Your task to perform on an android device: Go to CNN.com Image 0: 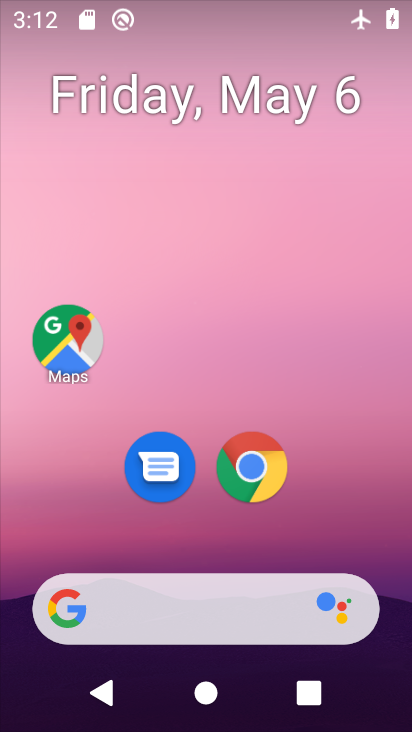
Step 0: drag from (399, 619) to (404, 227)
Your task to perform on an android device: Go to CNN.com Image 1: 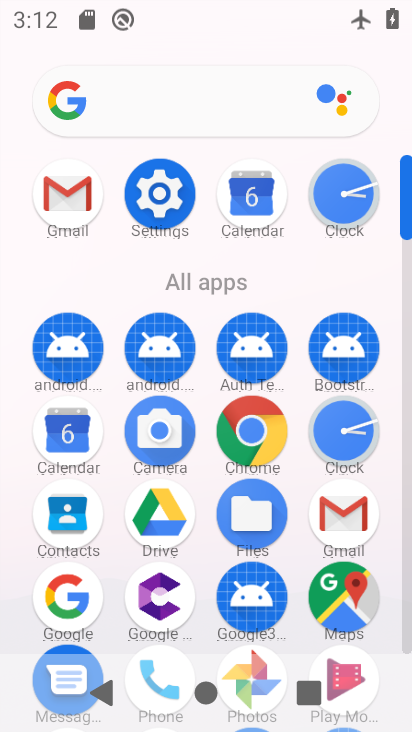
Step 1: click (245, 433)
Your task to perform on an android device: Go to CNN.com Image 2: 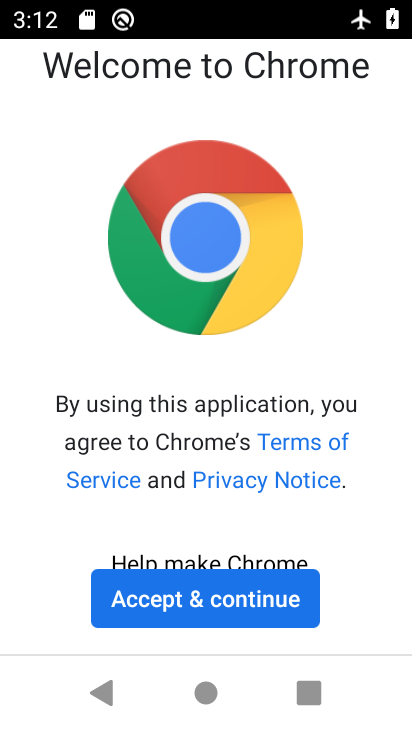
Step 2: click (194, 601)
Your task to perform on an android device: Go to CNN.com Image 3: 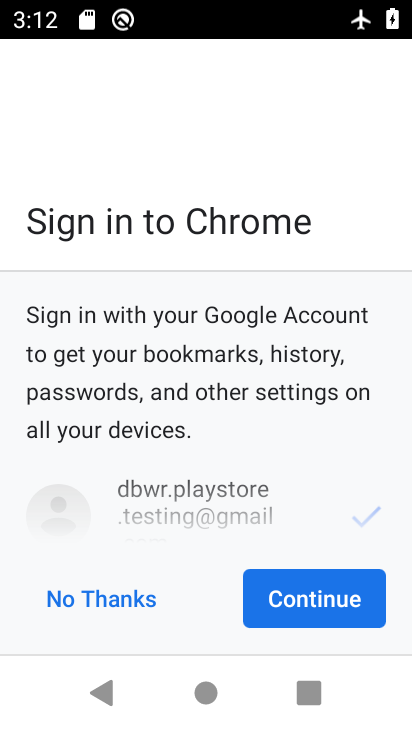
Step 3: click (327, 597)
Your task to perform on an android device: Go to CNN.com Image 4: 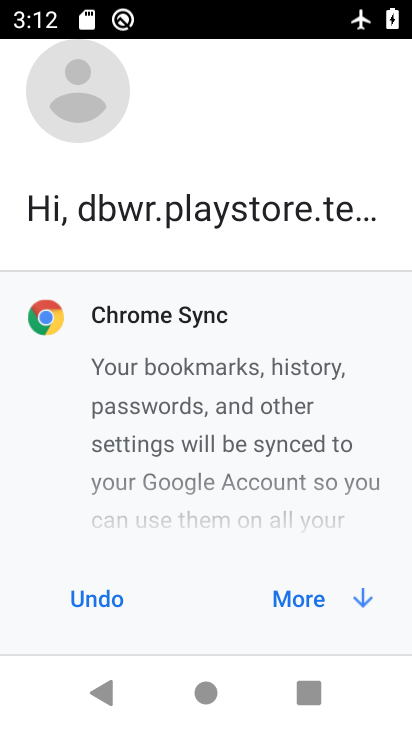
Step 4: click (313, 594)
Your task to perform on an android device: Go to CNN.com Image 5: 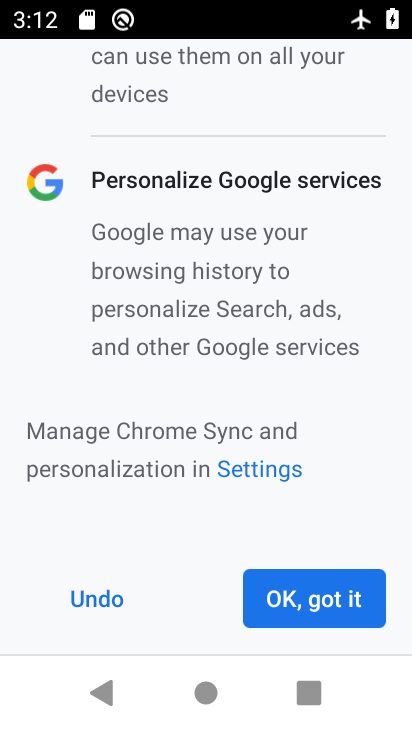
Step 5: click (313, 592)
Your task to perform on an android device: Go to CNN.com Image 6: 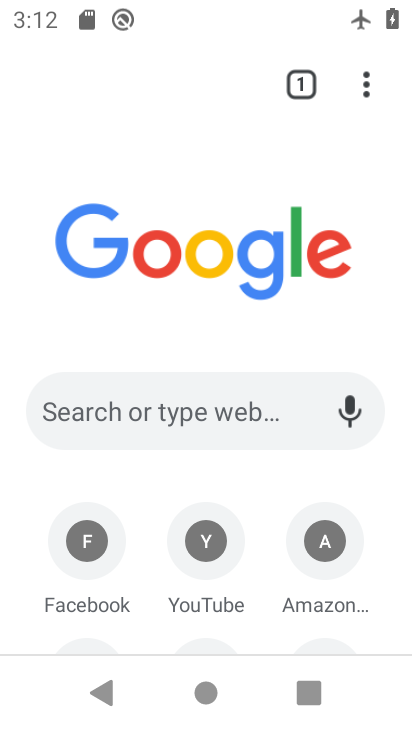
Step 6: click (151, 411)
Your task to perform on an android device: Go to CNN.com Image 7: 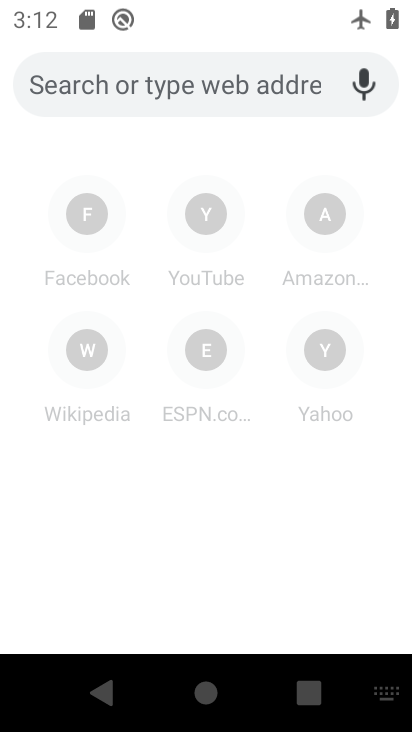
Step 7: type "CNN.com"
Your task to perform on an android device: Go to CNN.com Image 8: 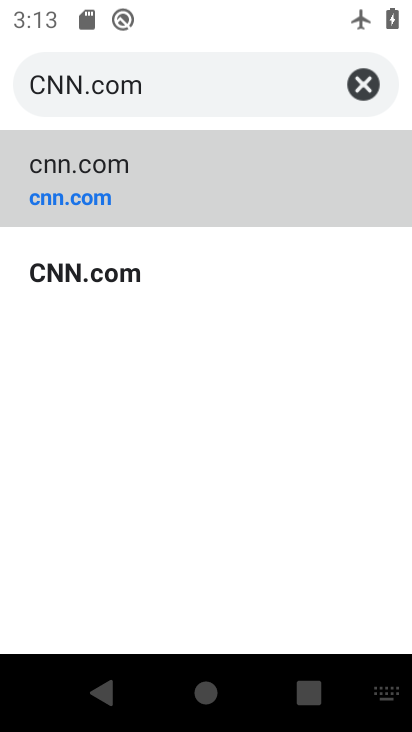
Step 8: click (110, 266)
Your task to perform on an android device: Go to CNN.com Image 9: 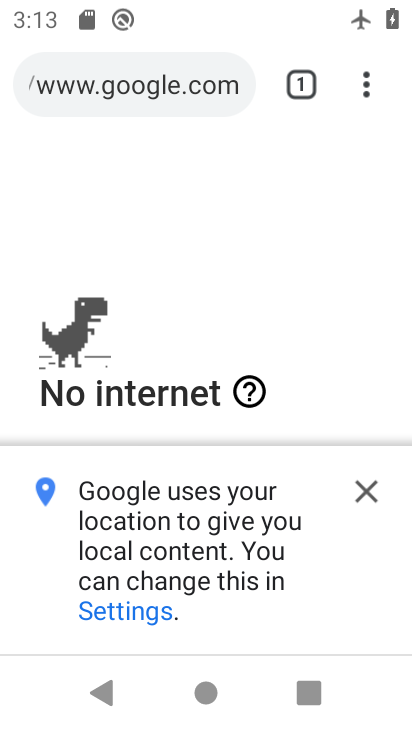
Step 9: task complete